Your task to perform on an android device: move a message to another label in the gmail app Image 0: 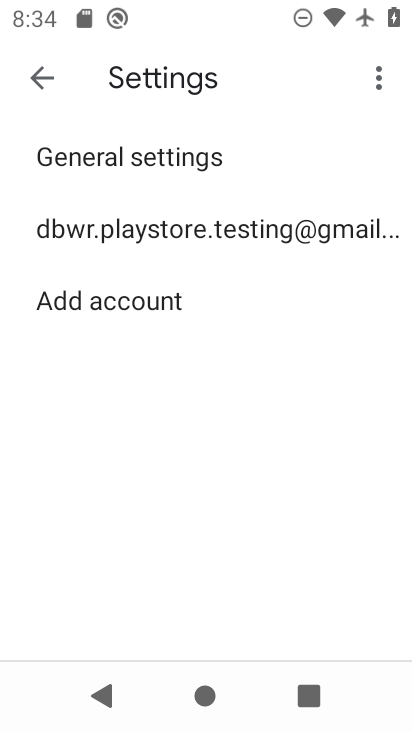
Step 0: press home button
Your task to perform on an android device: move a message to another label in the gmail app Image 1: 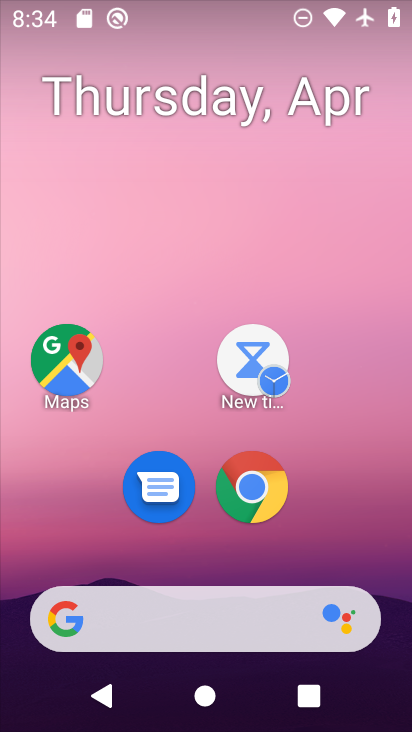
Step 1: drag from (317, 536) to (304, 73)
Your task to perform on an android device: move a message to another label in the gmail app Image 2: 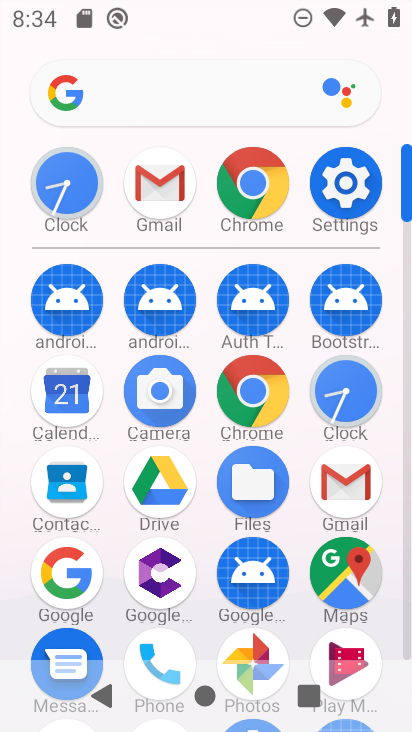
Step 2: click (347, 486)
Your task to perform on an android device: move a message to another label in the gmail app Image 3: 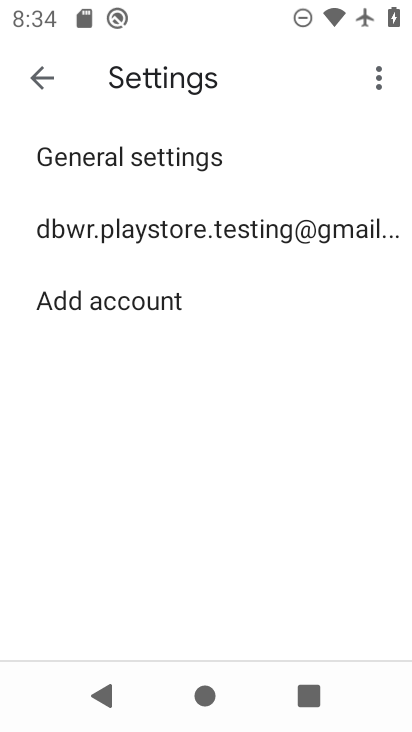
Step 3: click (31, 74)
Your task to perform on an android device: move a message to another label in the gmail app Image 4: 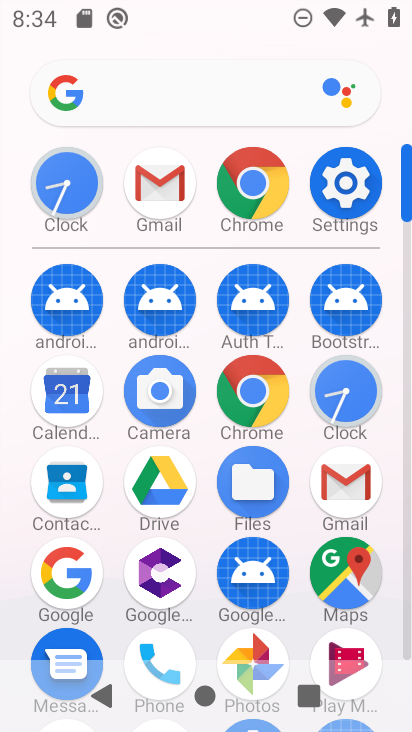
Step 4: click (176, 185)
Your task to perform on an android device: move a message to another label in the gmail app Image 5: 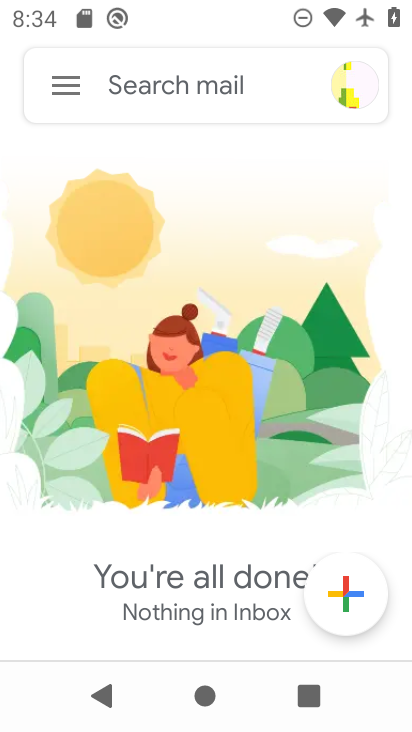
Step 5: click (67, 87)
Your task to perform on an android device: move a message to another label in the gmail app Image 6: 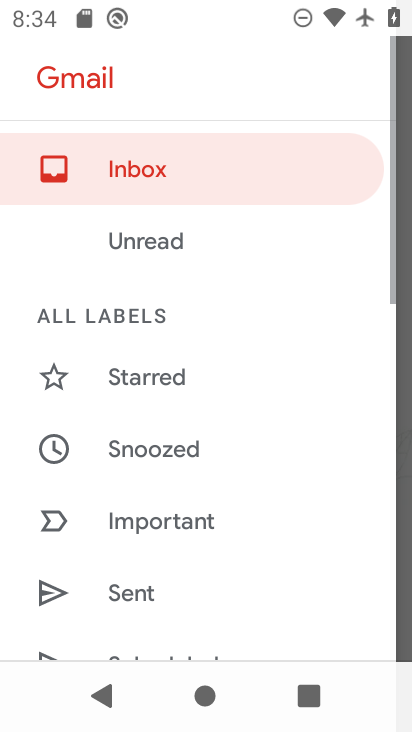
Step 6: drag from (141, 234) to (51, 186)
Your task to perform on an android device: move a message to another label in the gmail app Image 7: 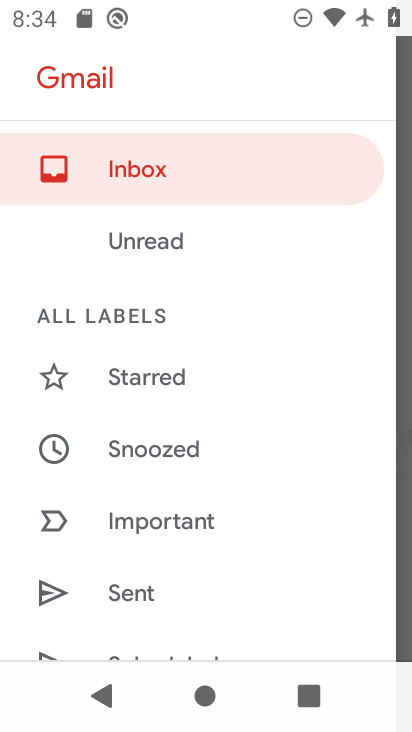
Step 7: click (109, 167)
Your task to perform on an android device: move a message to another label in the gmail app Image 8: 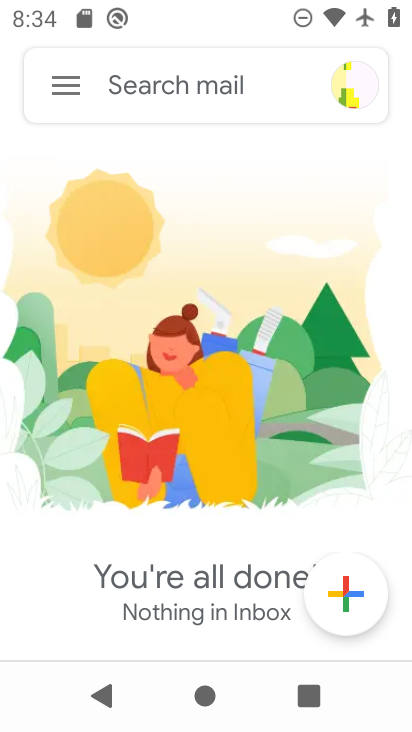
Step 8: task complete